Your task to perform on an android device: check the backup settings in the google photos Image 0: 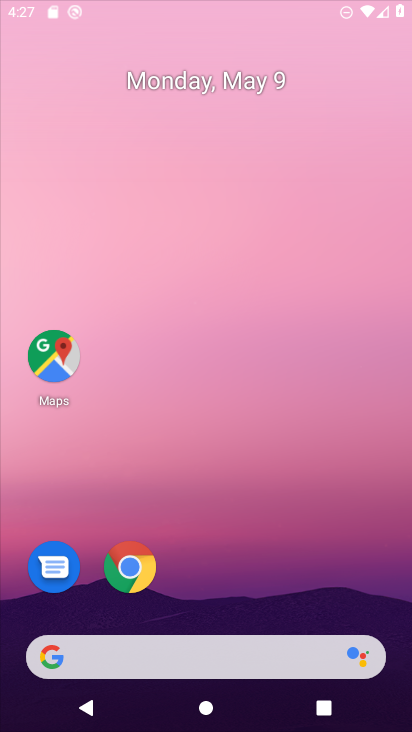
Step 0: drag from (252, 578) to (184, 81)
Your task to perform on an android device: check the backup settings in the google photos Image 1: 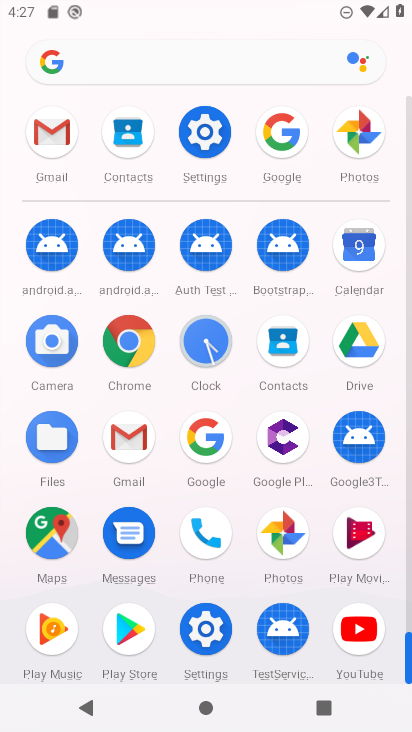
Step 1: click (279, 544)
Your task to perform on an android device: check the backup settings in the google photos Image 2: 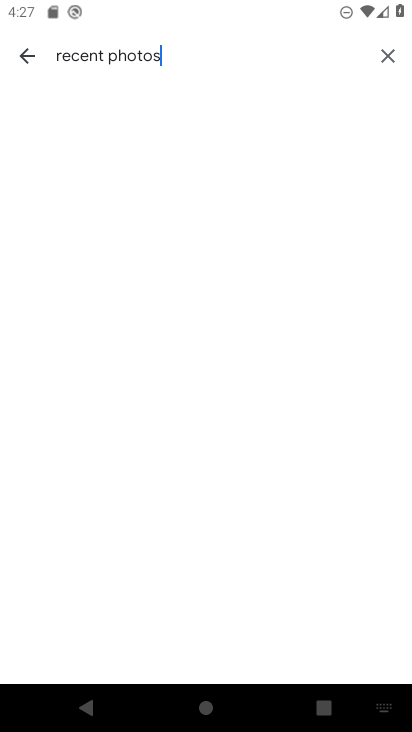
Step 2: click (30, 54)
Your task to perform on an android device: check the backup settings in the google photos Image 3: 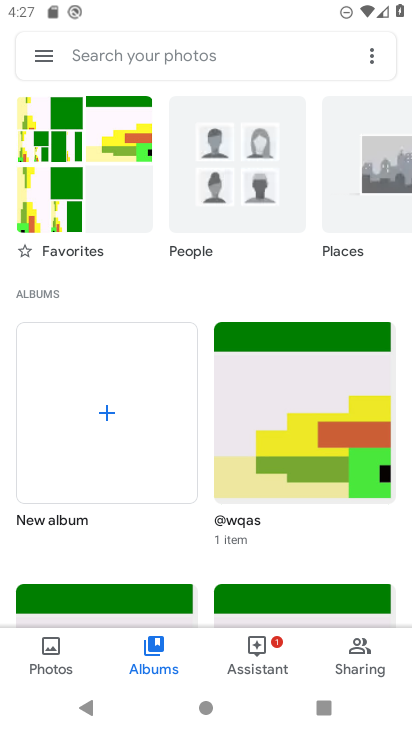
Step 3: click (45, 56)
Your task to perform on an android device: check the backup settings in the google photos Image 4: 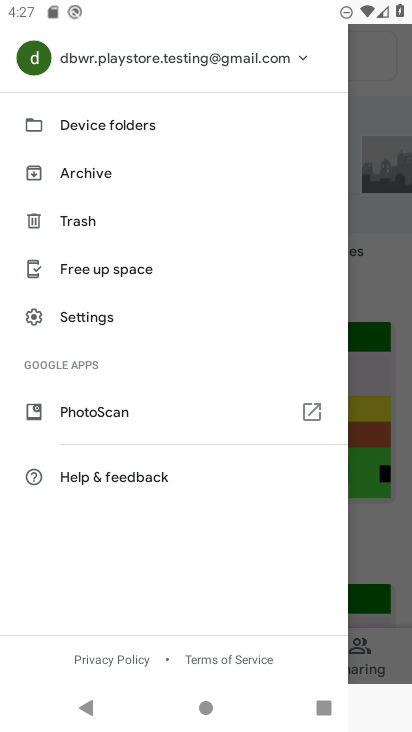
Step 4: click (101, 308)
Your task to perform on an android device: check the backup settings in the google photos Image 5: 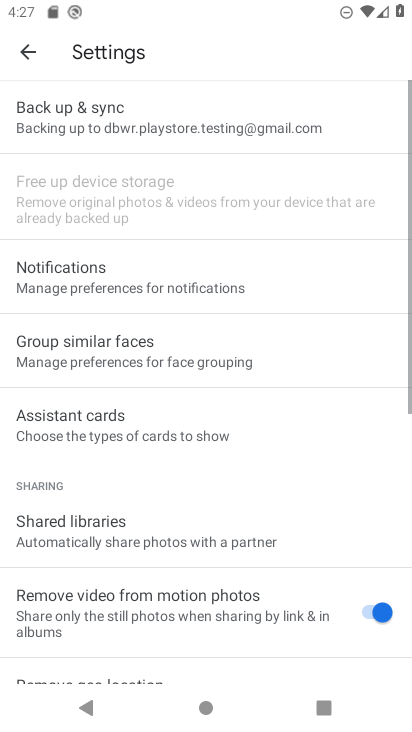
Step 5: click (149, 132)
Your task to perform on an android device: check the backup settings in the google photos Image 6: 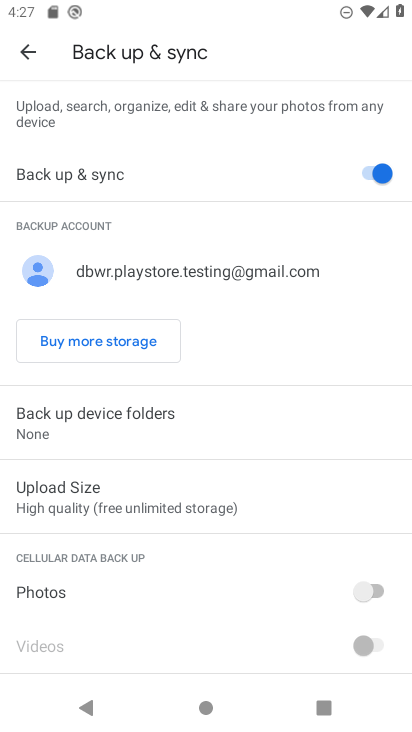
Step 6: task complete